Your task to perform on an android device: Go to CNN.com Image 0: 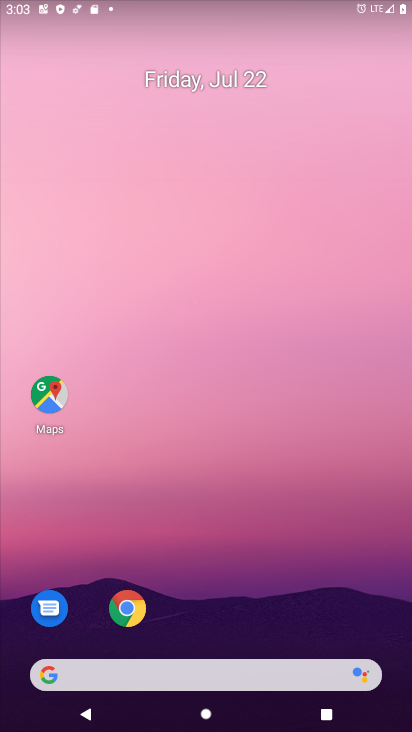
Step 0: click (135, 612)
Your task to perform on an android device: Go to CNN.com Image 1: 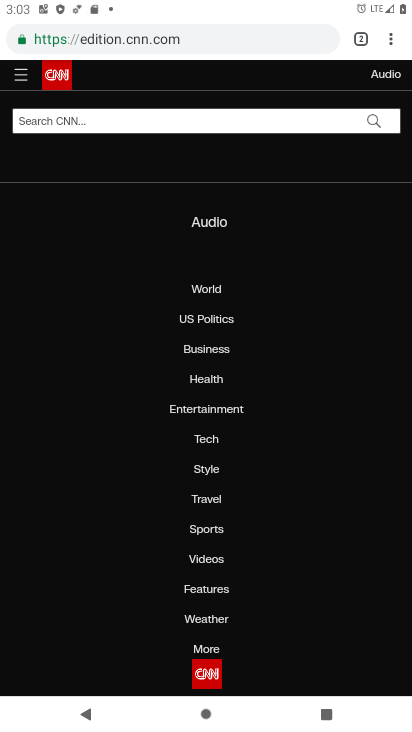
Step 1: click (206, 40)
Your task to perform on an android device: Go to CNN.com Image 2: 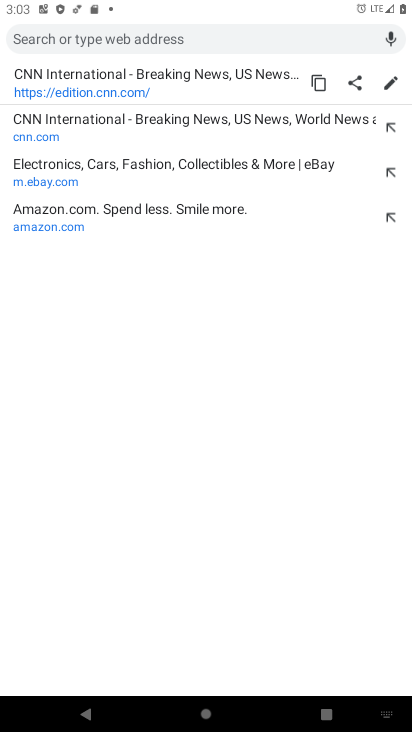
Step 2: click (192, 127)
Your task to perform on an android device: Go to CNN.com Image 3: 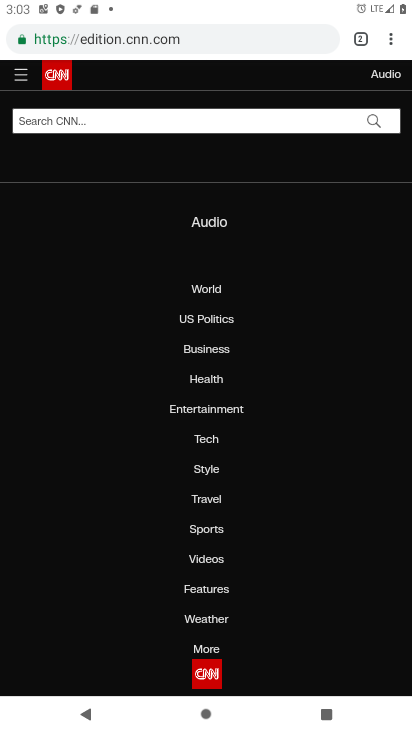
Step 3: task complete